Your task to perform on an android device: Open calendar and show me the first week of next month Image 0: 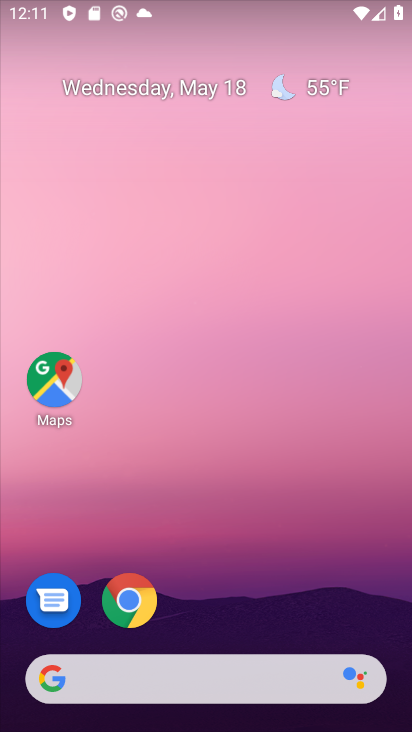
Step 0: drag from (179, 655) to (221, 18)
Your task to perform on an android device: Open calendar and show me the first week of next month Image 1: 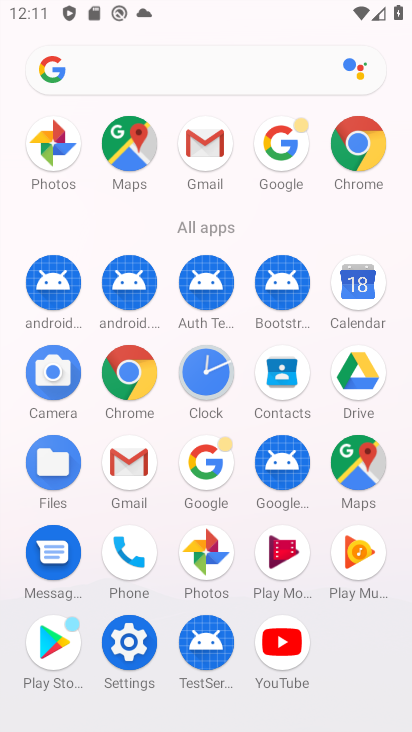
Step 1: click (351, 309)
Your task to perform on an android device: Open calendar and show me the first week of next month Image 2: 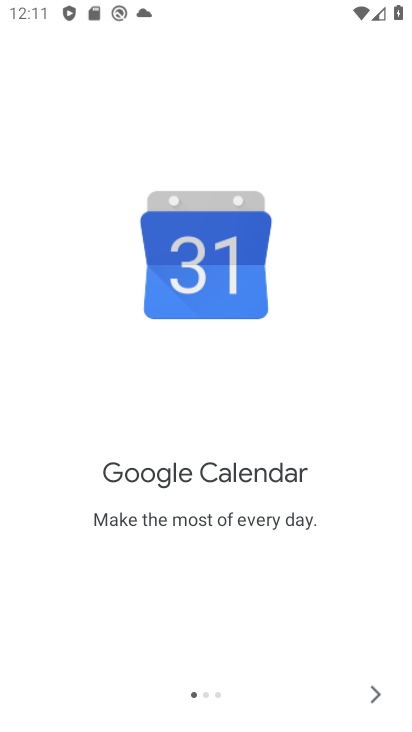
Step 2: click (384, 703)
Your task to perform on an android device: Open calendar and show me the first week of next month Image 3: 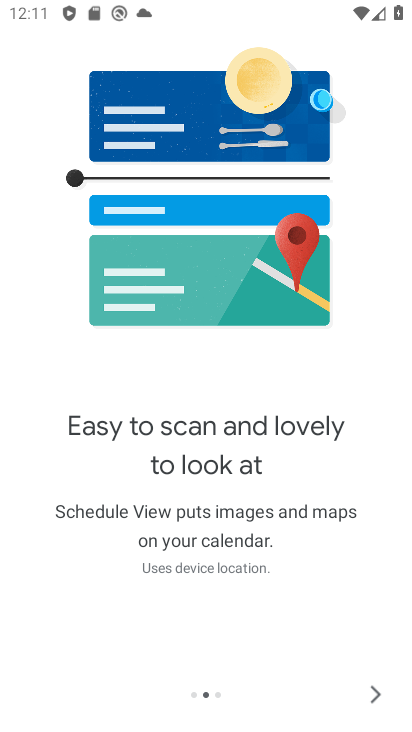
Step 3: click (380, 702)
Your task to perform on an android device: Open calendar and show me the first week of next month Image 4: 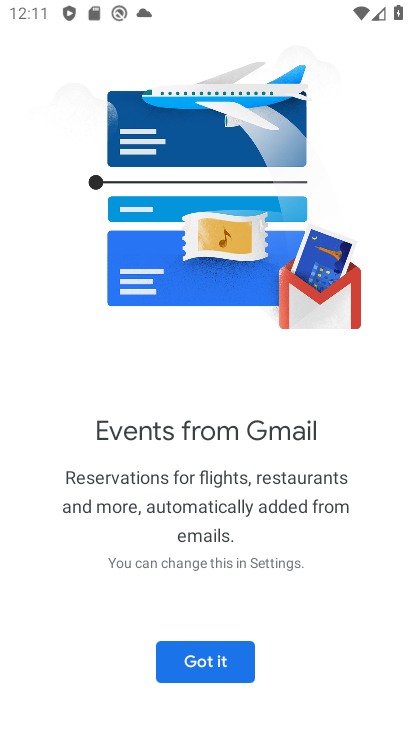
Step 4: click (210, 660)
Your task to perform on an android device: Open calendar and show me the first week of next month Image 5: 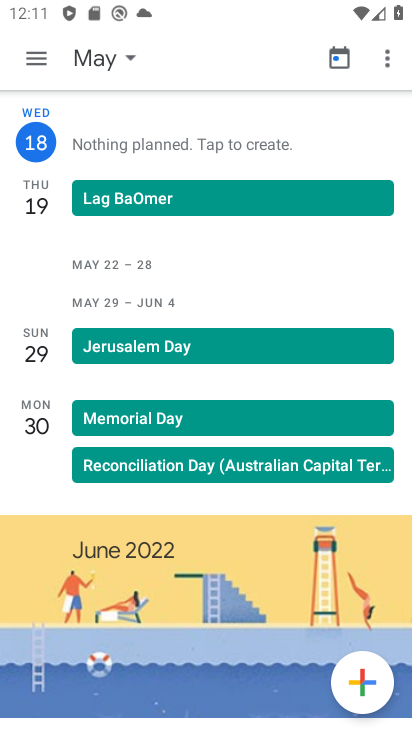
Step 5: click (35, 66)
Your task to perform on an android device: Open calendar and show me the first week of next month Image 6: 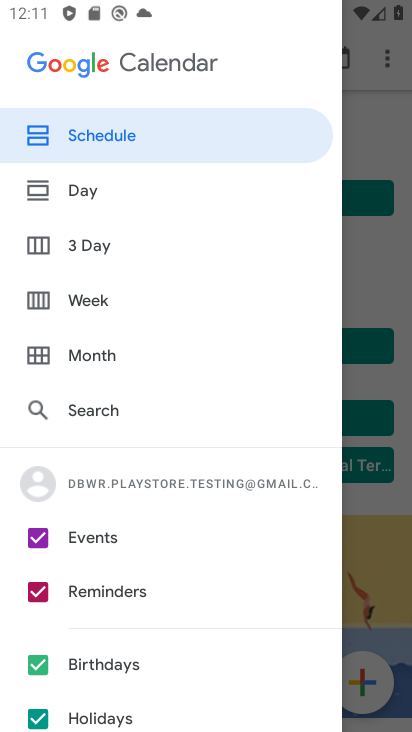
Step 6: click (101, 354)
Your task to perform on an android device: Open calendar and show me the first week of next month Image 7: 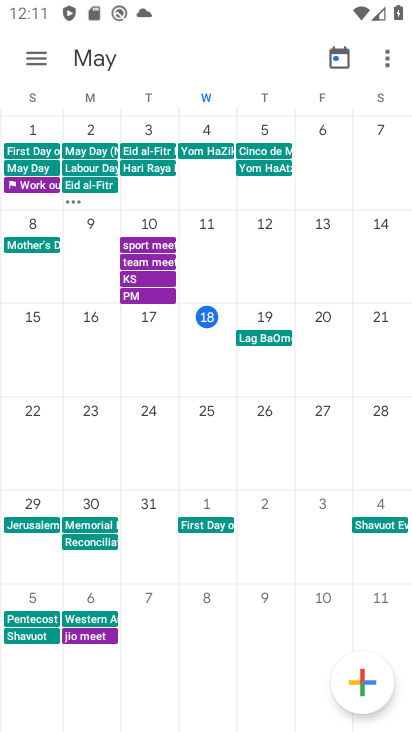
Step 7: task complete